Your task to perform on an android device: toggle notifications settings in the gmail app Image 0: 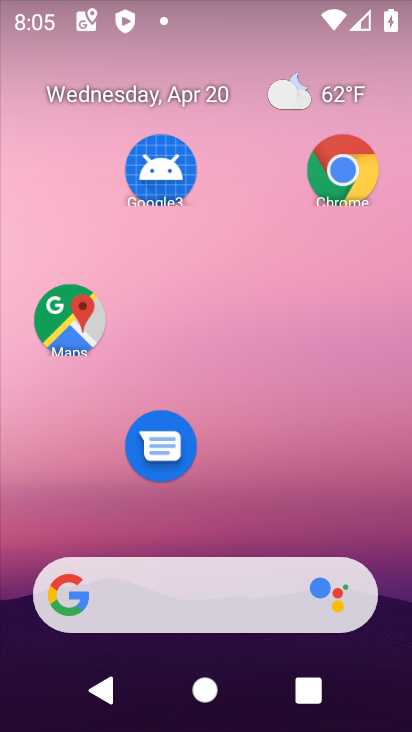
Step 0: drag from (238, 511) to (239, 325)
Your task to perform on an android device: toggle notifications settings in the gmail app Image 1: 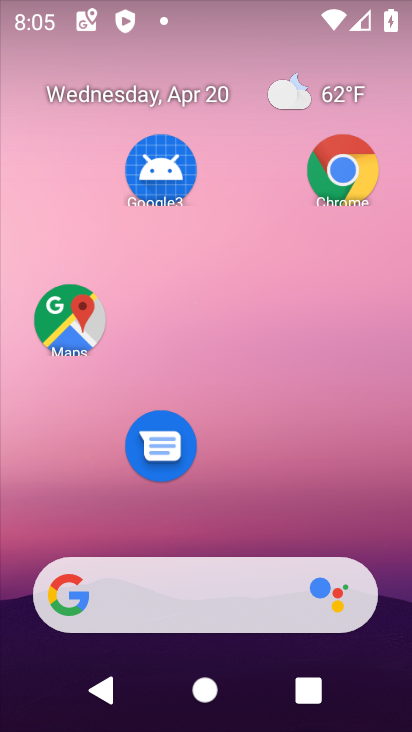
Step 1: drag from (258, 506) to (236, 1)
Your task to perform on an android device: toggle notifications settings in the gmail app Image 2: 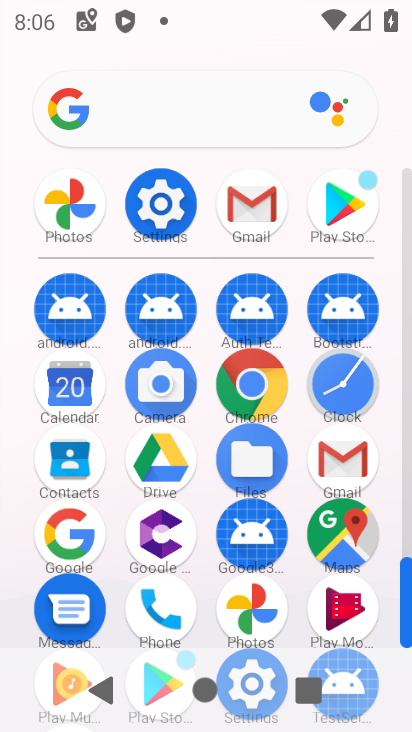
Step 2: click (257, 206)
Your task to perform on an android device: toggle notifications settings in the gmail app Image 3: 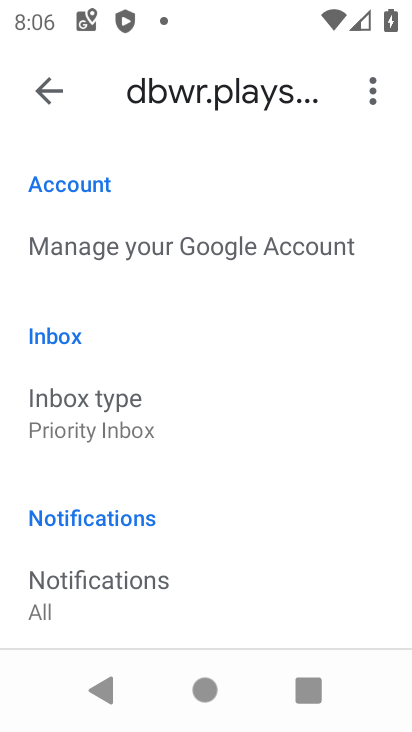
Step 3: click (46, 95)
Your task to perform on an android device: toggle notifications settings in the gmail app Image 4: 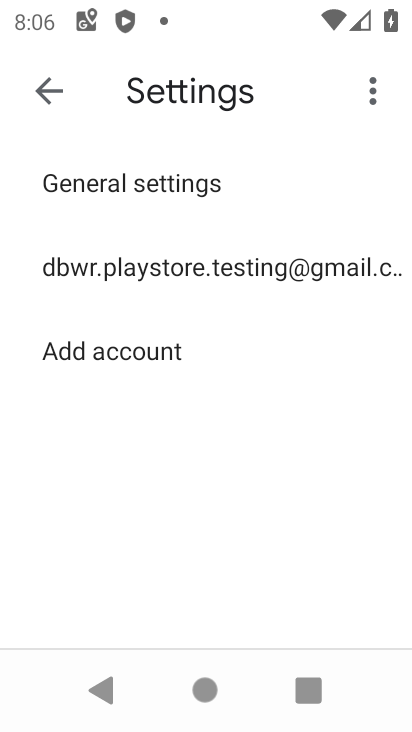
Step 4: click (105, 179)
Your task to perform on an android device: toggle notifications settings in the gmail app Image 5: 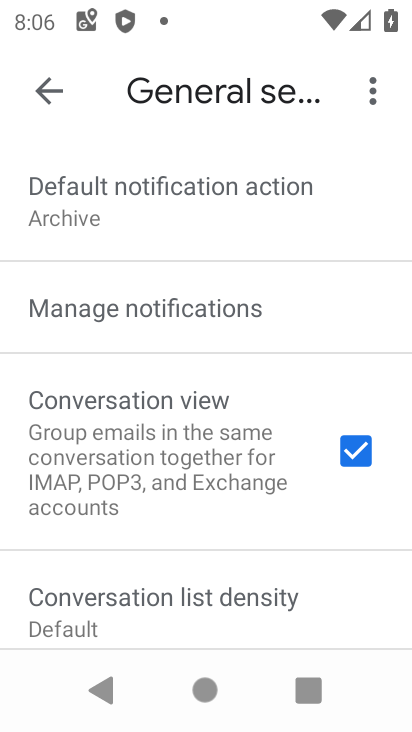
Step 5: click (119, 304)
Your task to perform on an android device: toggle notifications settings in the gmail app Image 6: 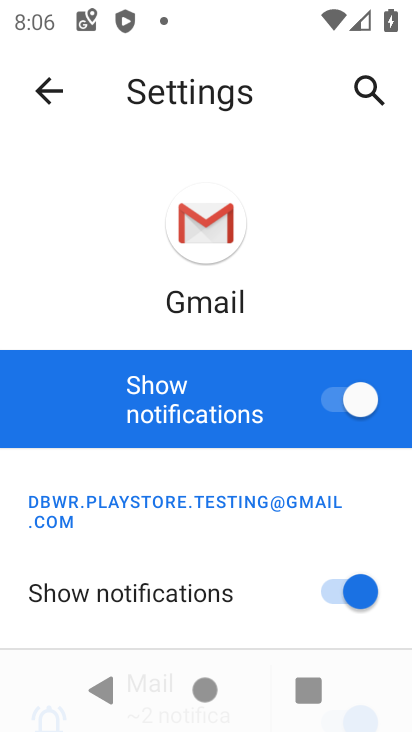
Step 6: click (349, 407)
Your task to perform on an android device: toggle notifications settings in the gmail app Image 7: 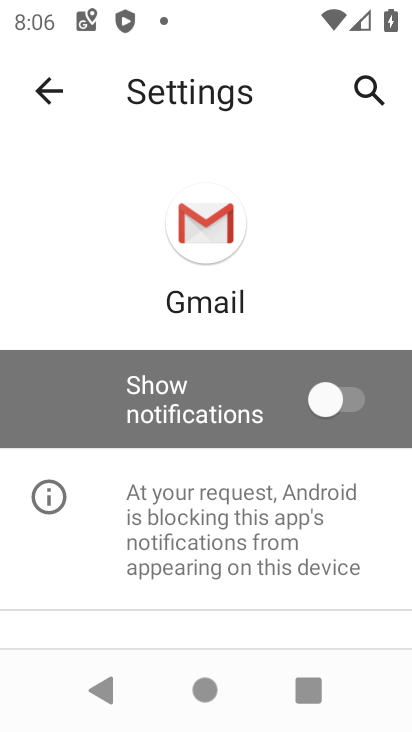
Step 7: task complete